Your task to perform on an android device: add a contact in the contacts app Image 0: 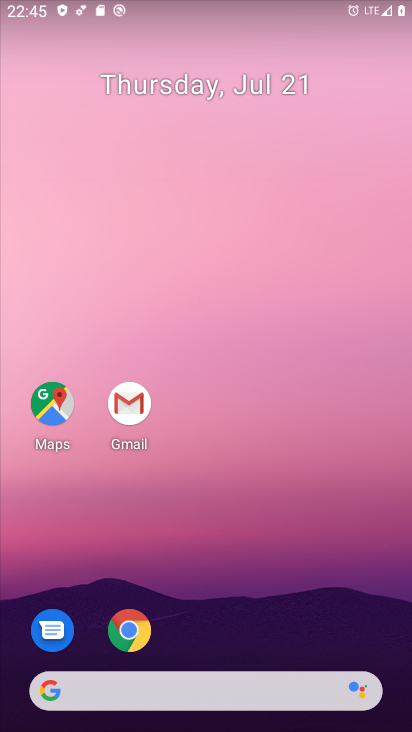
Step 0: drag from (253, 661) to (219, 177)
Your task to perform on an android device: add a contact in the contacts app Image 1: 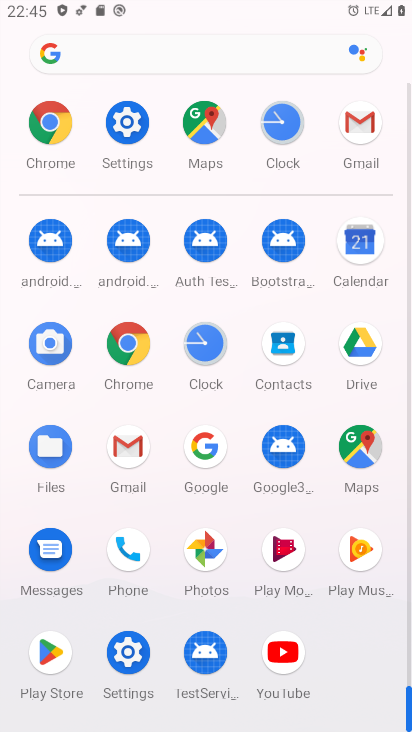
Step 1: click (293, 352)
Your task to perform on an android device: add a contact in the contacts app Image 2: 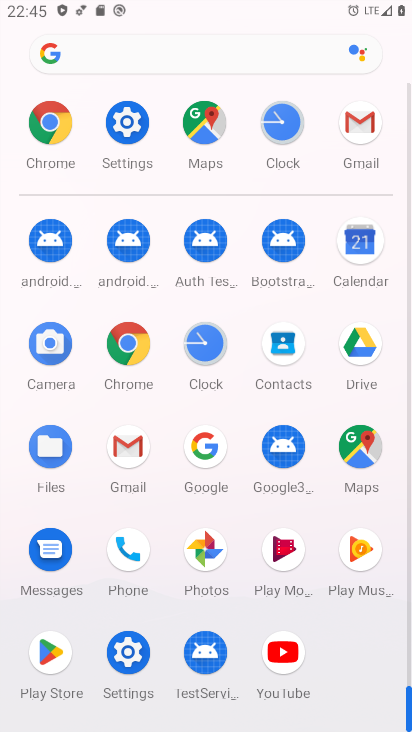
Step 2: click (291, 350)
Your task to perform on an android device: add a contact in the contacts app Image 3: 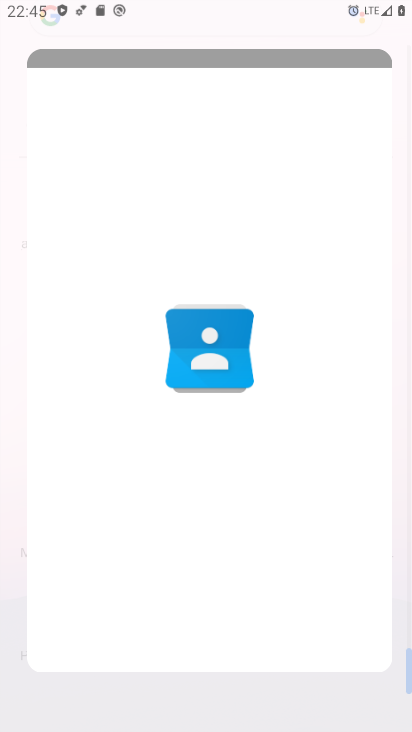
Step 3: click (291, 350)
Your task to perform on an android device: add a contact in the contacts app Image 4: 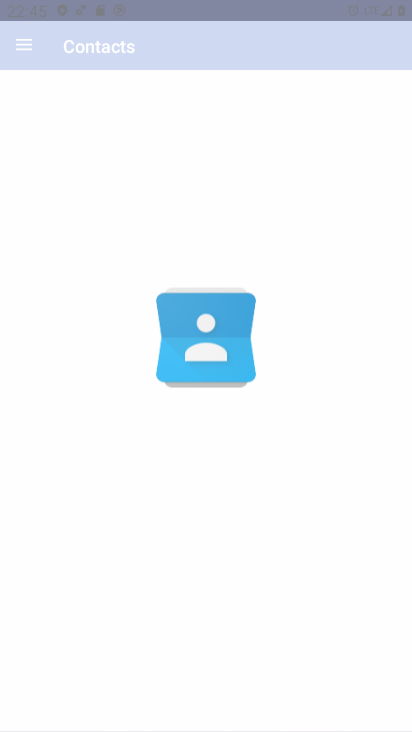
Step 4: click (289, 350)
Your task to perform on an android device: add a contact in the contacts app Image 5: 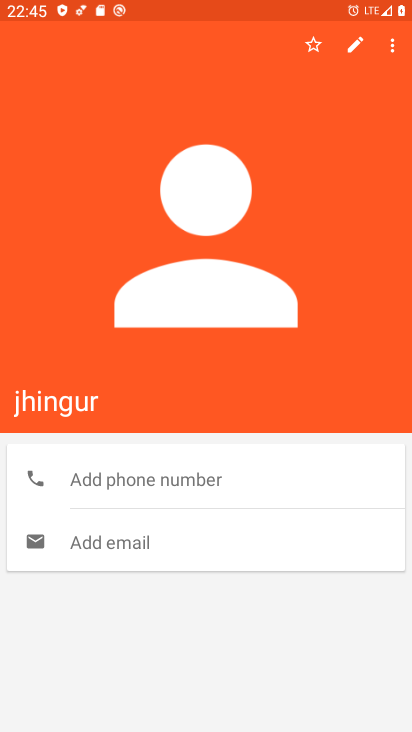
Step 5: press back button
Your task to perform on an android device: add a contact in the contacts app Image 6: 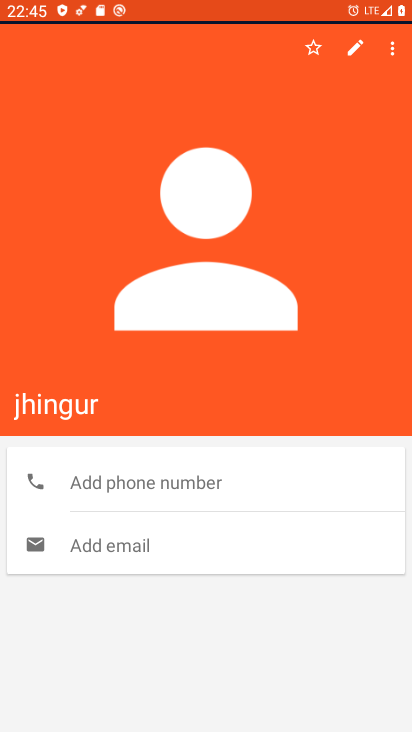
Step 6: press back button
Your task to perform on an android device: add a contact in the contacts app Image 7: 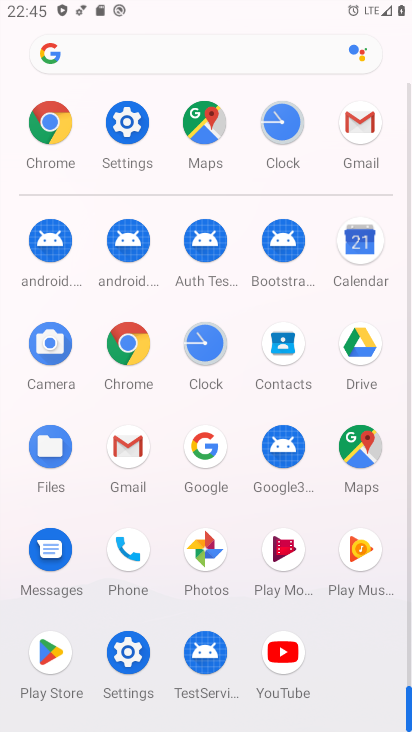
Step 7: click (286, 355)
Your task to perform on an android device: add a contact in the contacts app Image 8: 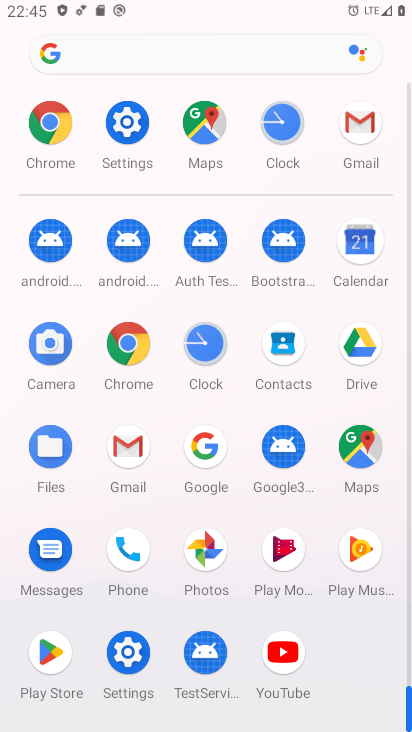
Step 8: click (286, 348)
Your task to perform on an android device: add a contact in the contacts app Image 9: 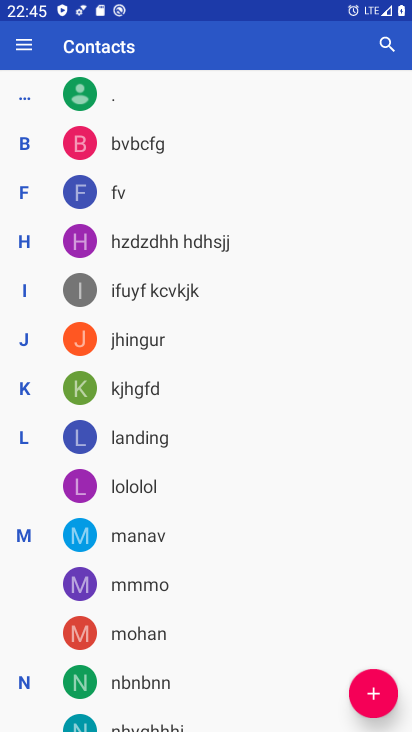
Step 9: click (373, 698)
Your task to perform on an android device: add a contact in the contacts app Image 10: 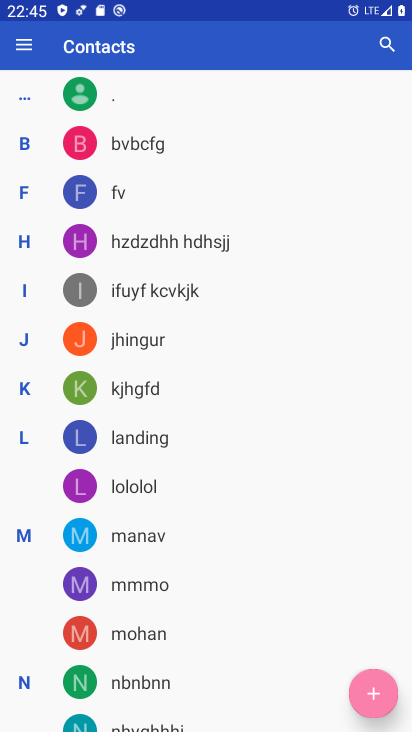
Step 10: click (374, 699)
Your task to perform on an android device: add a contact in the contacts app Image 11: 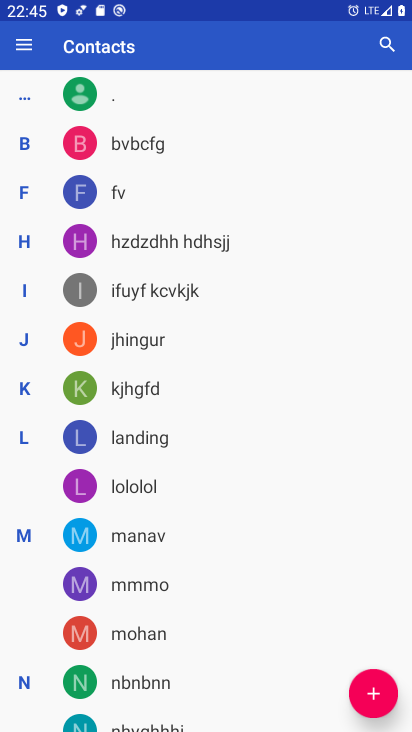
Step 11: click (379, 699)
Your task to perform on an android device: add a contact in the contacts app Image 12: 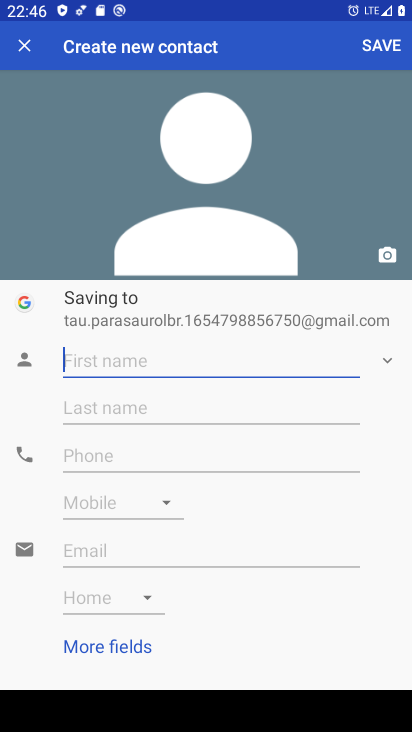
Step 12: type "  jgjvjkgk vkn gj "
Your task to perform on an android device: add a contact in the contacts app Image 13: 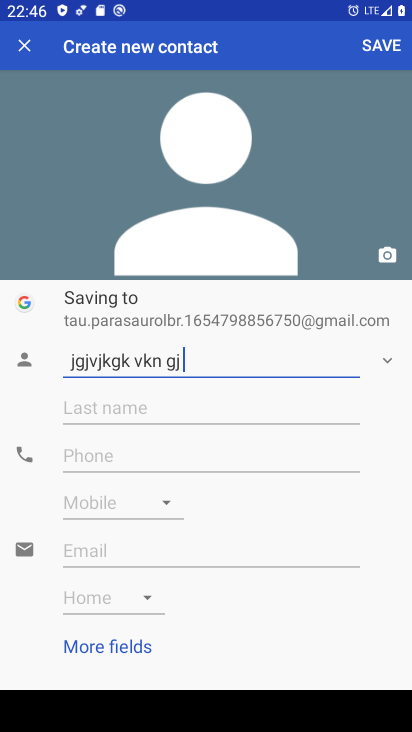
Step 13: click (96, 458)
Your task to perform on an android device: add a contact in the contacts app Image 14: 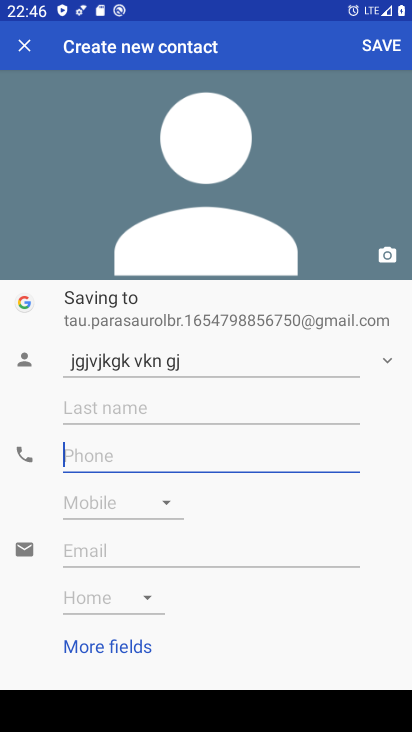
Step 14: type "73234344658884"
Your task to perform on an android device: add a contact in the contacts app Image 15: 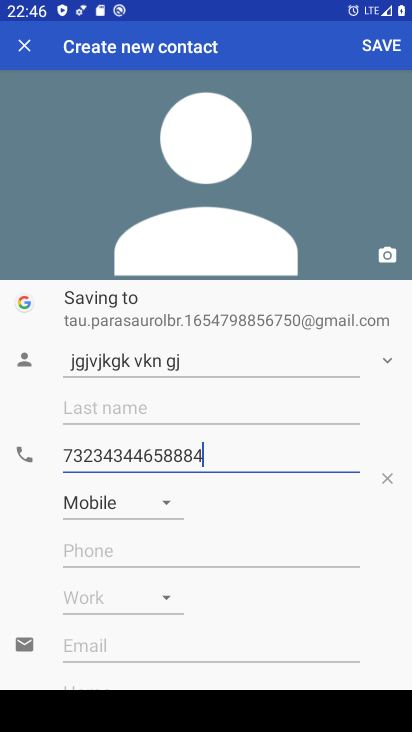
Step 15: click (382, 46)
Your task to perform on an android device: add a contact in the contacts app Image 16: 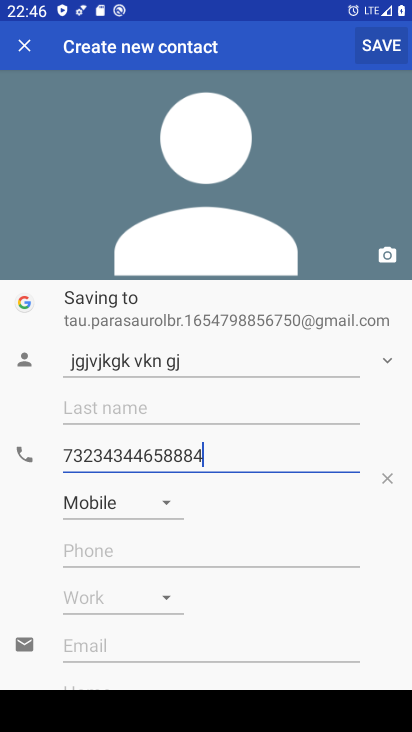
Step 16: click (379, 47)
Your task to perform on an android device: add a contact in the contacts app Image 17: 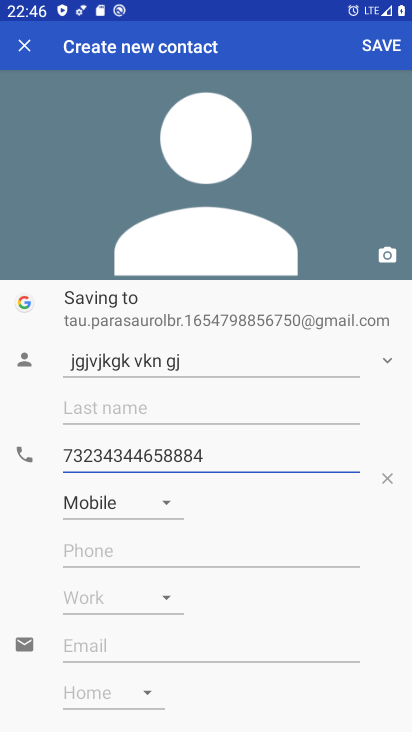
Step 17: click (379, 47)
Your task to perform on an android device: add a contact in the contacts app Image 18: 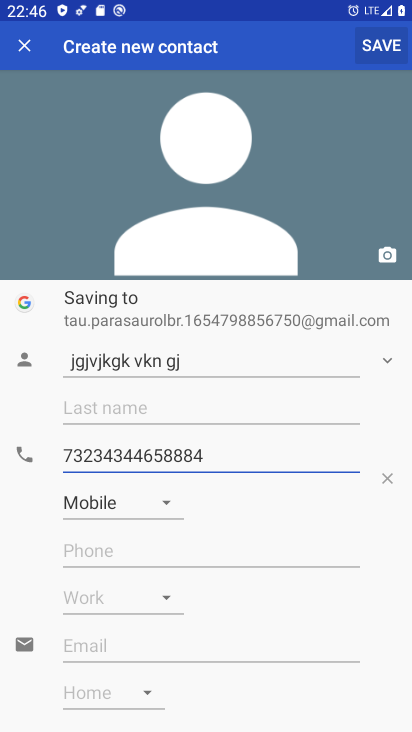
Step 18: click (379, 47)
Your task to perform on an android device: add a contact in the contacts app Image 19: 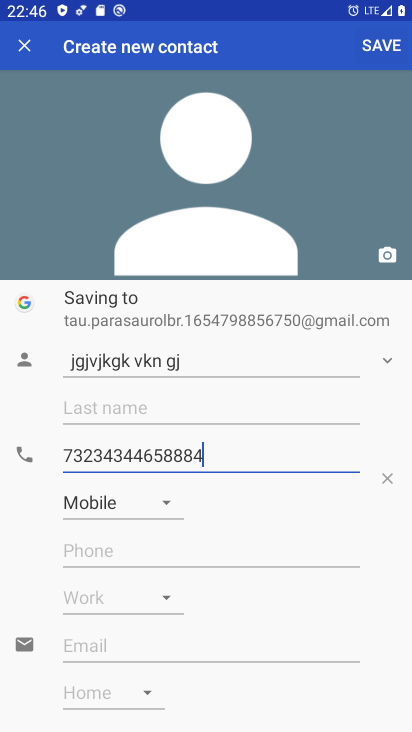
Step 19: click (379, 47)
Your task to perform on an android device: add a contact in the contacts app Image 20: 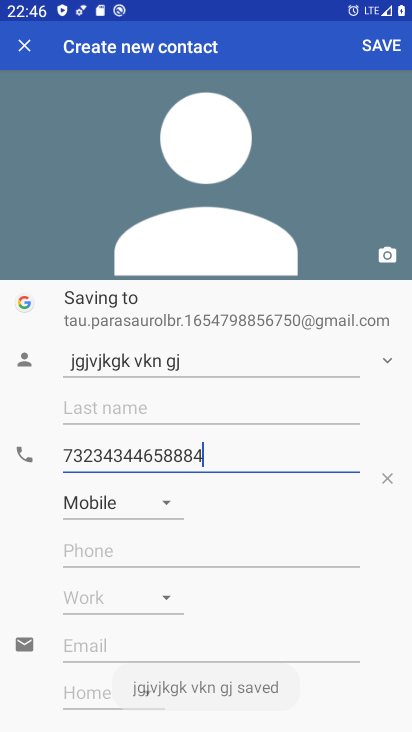
Step 20: click (378, 48)
Your task to perform on an android device: add a contact in the contacts app Image 21: 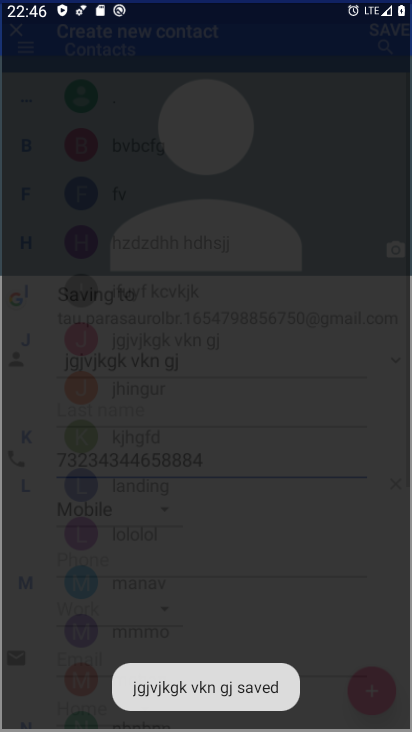
Step 21: click (378, 48)
Your task to perform on an android device: add a contact in the contacts app Image 22: 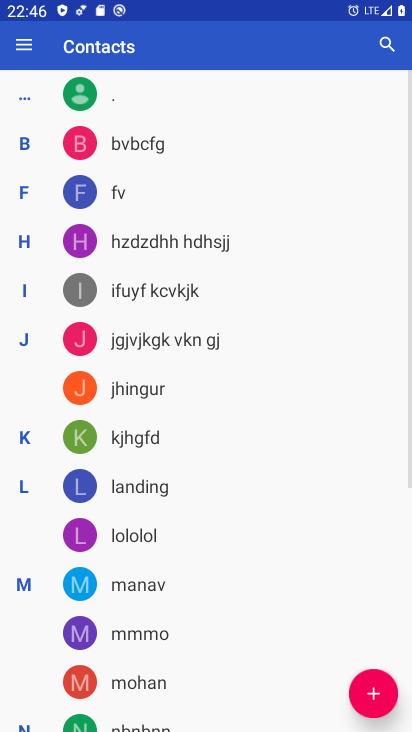
Step 22: task complete